Your task to perform on an android device: Open settings on Google Maps Image 0: 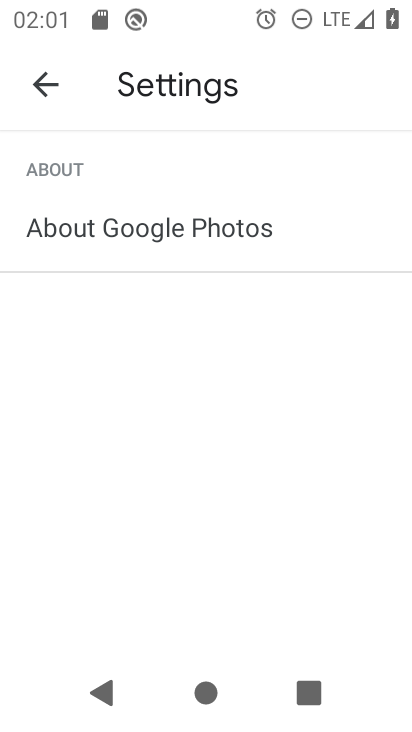
Step 0: press home button
Your task to perform on an android device: Open settings on Google Maps Image 1: 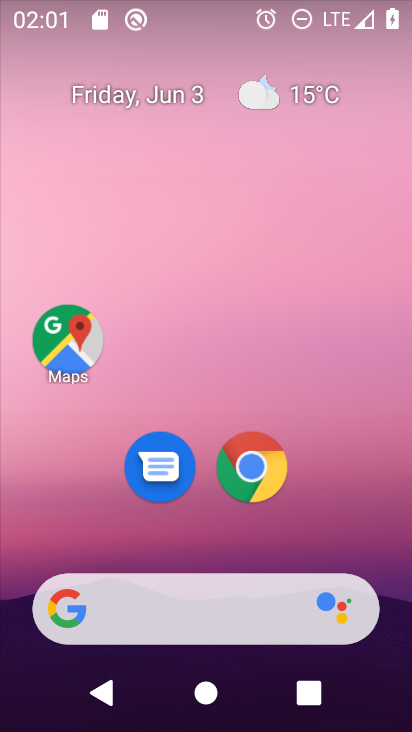
Step 1: click (68, 338)
Your task to perform on an android device: Open settings on Google Maps Image 2: 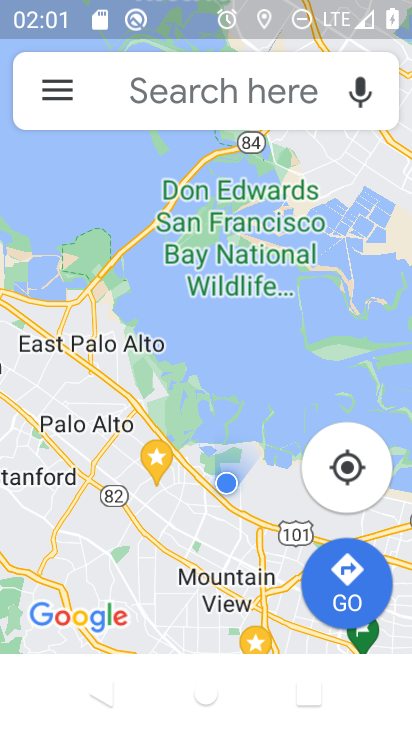
Step 2: click (175, 99)
Your task to perform on an android device: Open settings on Google Maps Image 3: 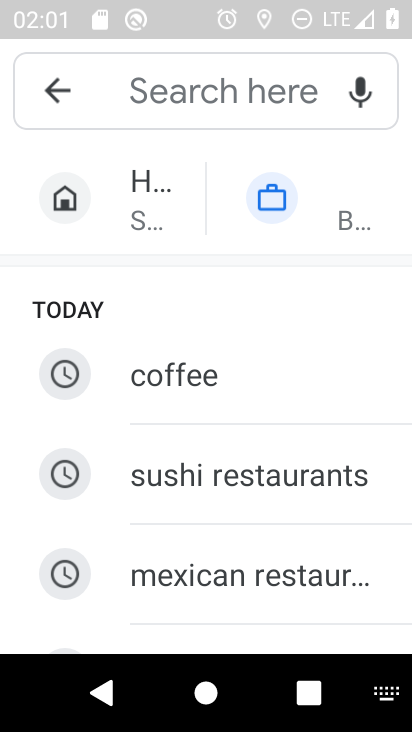
Step 3: press back button
Your task to perform on an android device: Open settings on Google Maps Image 4: 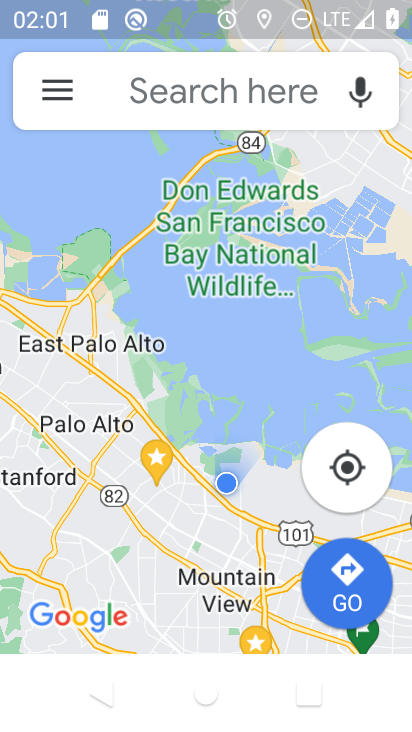
Step 4: click (51, 89)
Your task to perform on an android device: Open settings on Google Maps Image 5: 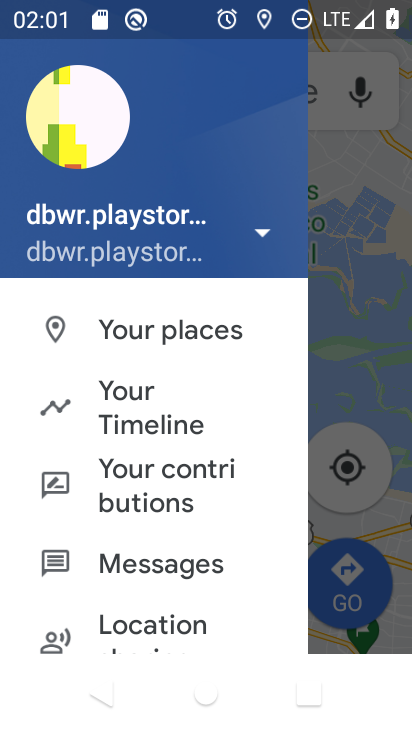
Step 5: drag from (221, 576) to (203, 141)
Your task to perform on an android device: Open settings on Google Maps Image 6: 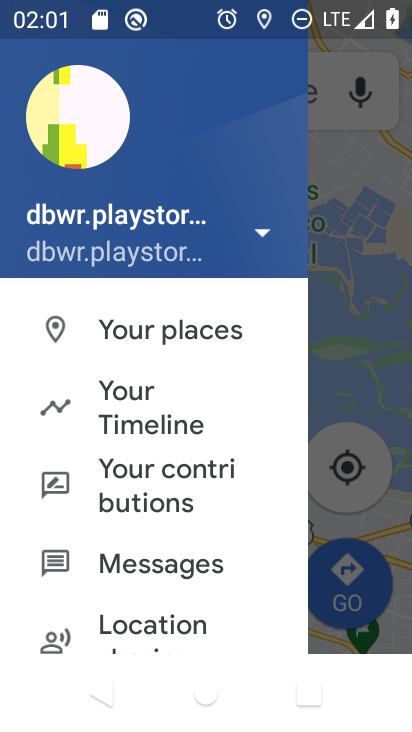
Step 6: drag from (232, 606) to (250, 86)
Your task to perform on an android device: Open settings on Google Maps Image 7: 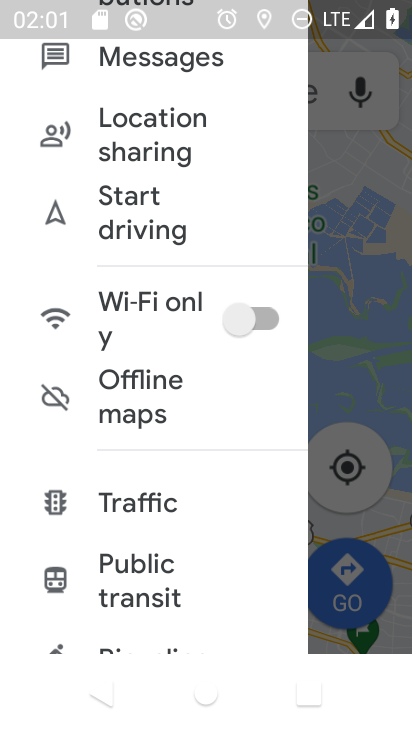
Step 7: drag from (221, 563) to (250, 171)
Your task to perform on an android device: Open settings on Google Maps Image 8: 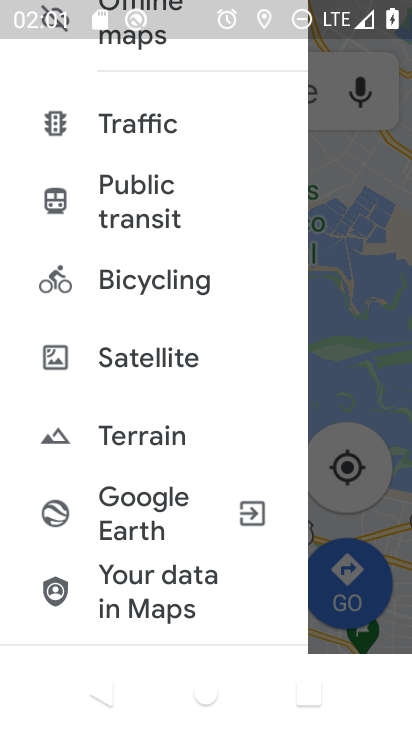
Step 8: drag from (227, 555) to (213, 138)
Your task to perform on an android device: Open settings on Google Maps Image 9: 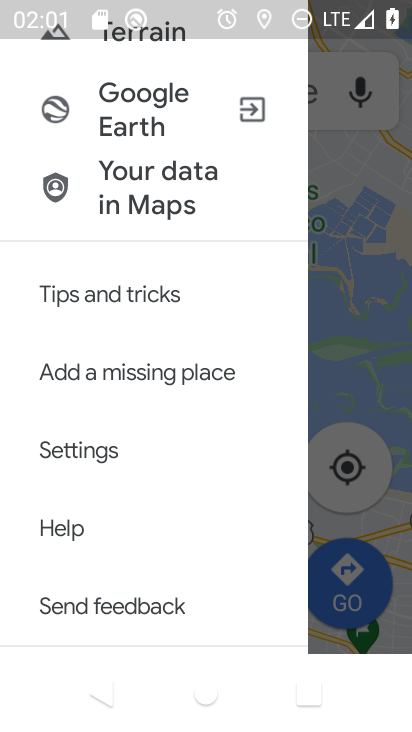
Step 9: click (69, 444)
Your task to perform on an android device: Open settings on Google Maps Image 10: 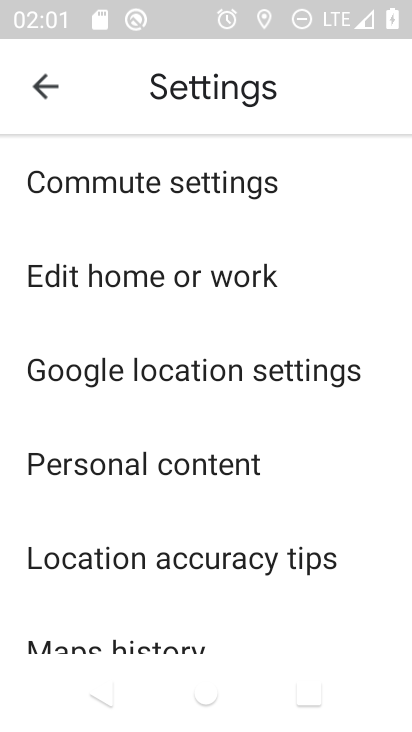
Step 10: task complete